Your task to perform on an android device: Open eBay Image 0: 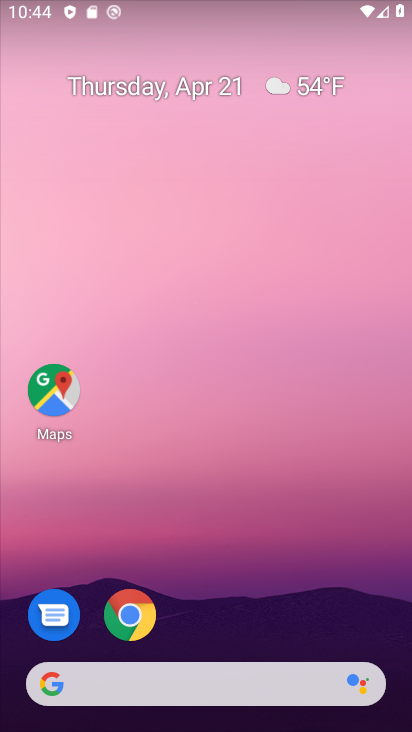
Step 0: click (123, 618)
Your task to perform on an android device: Open eBay Image 1: 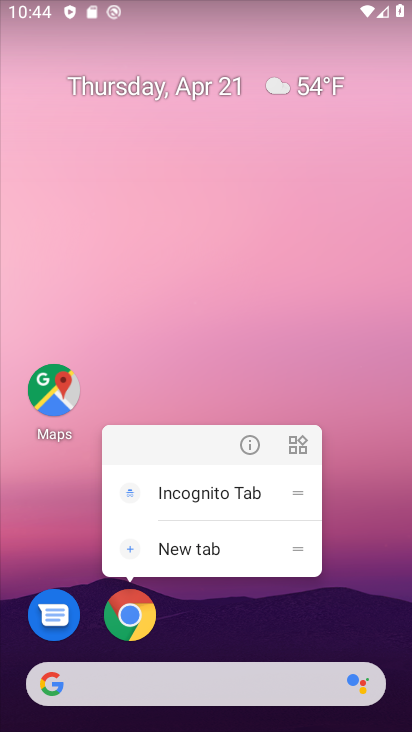
Step 1: click (123, 616)
Your task to perform on an android device: Open eBay Image 2: 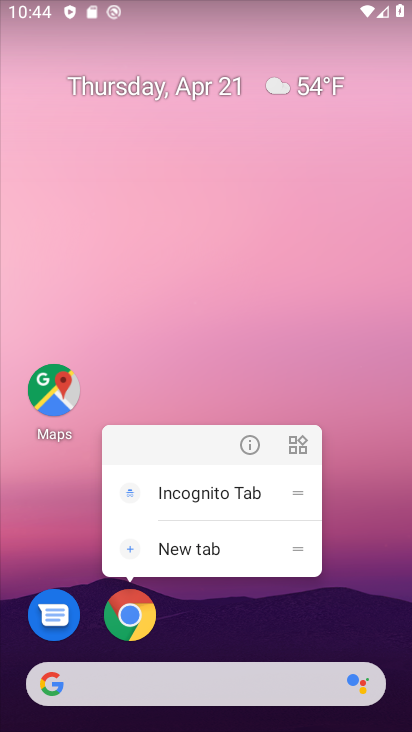
Step 2: click (123, 616)
Your task to perform on an android device: Open eBay Image 3: 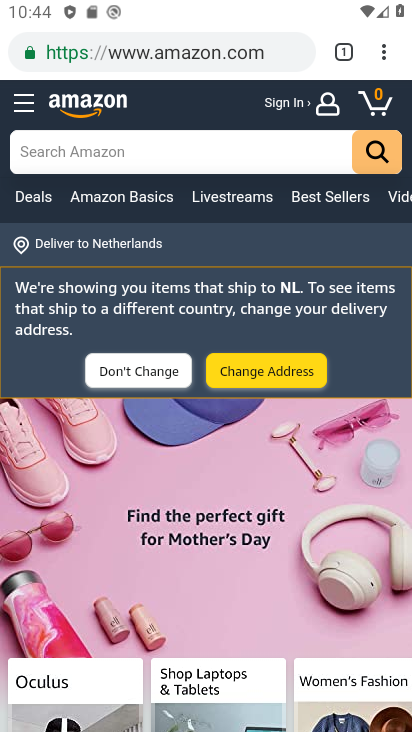
Step 3: click (173, 64)
Your task to perform on an android device: Open eBay Image 4: 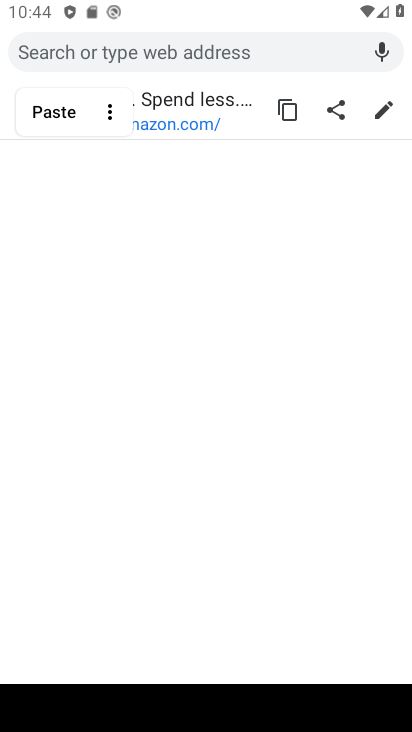
Step 4: type "ebay"
Your task to perform on an android device: Open eBay Image 5: 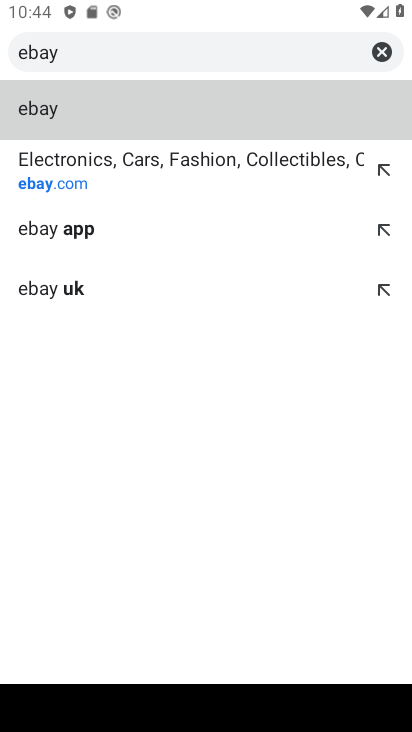
Step 5: click (30, 105)
Your task to perform on an android device: Open eBay Image 6: 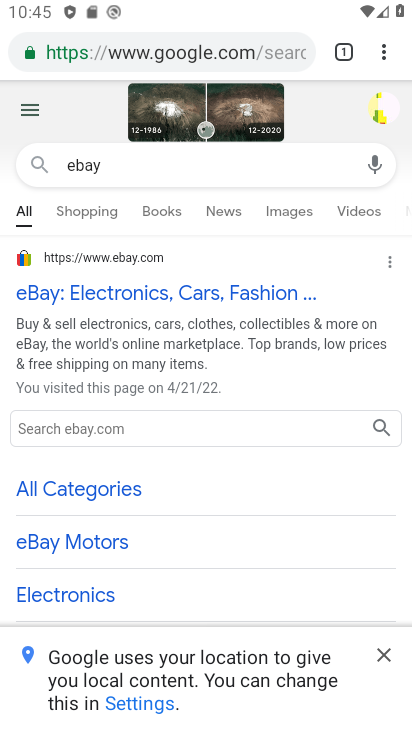
Step 6: click (95, 290)
Your task to perform on an android device: Open eBay Image 7: 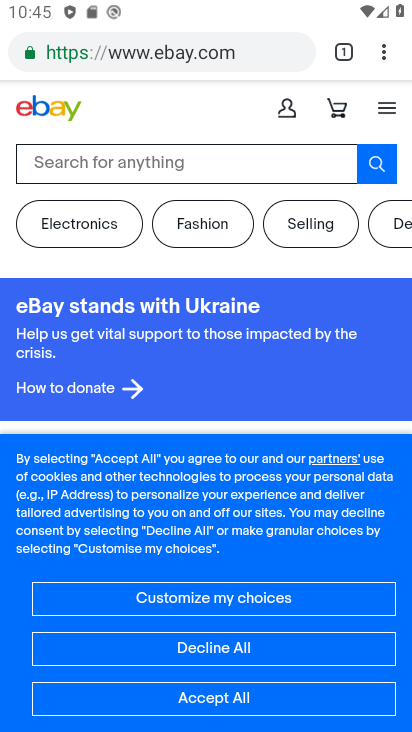
Step 7: task complete